Your task to perform on an android device: Open Google Chrome and click the shortcut for Amazon.com Image 0: 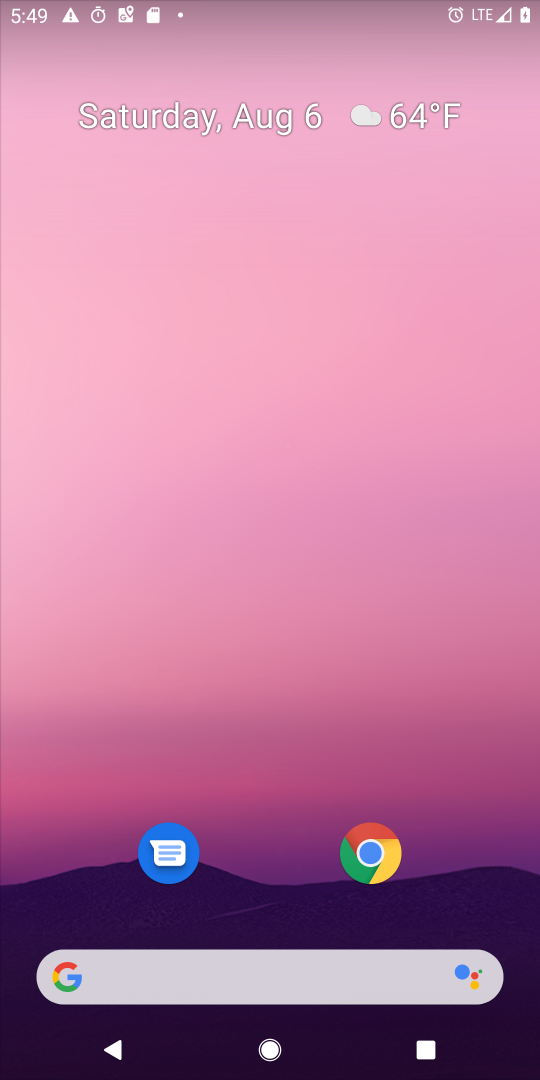
Step 0: click (372, 849)
Your task to perform on an android device: Open Google Chrome and click the shortcut for Amazon.com Image 1: 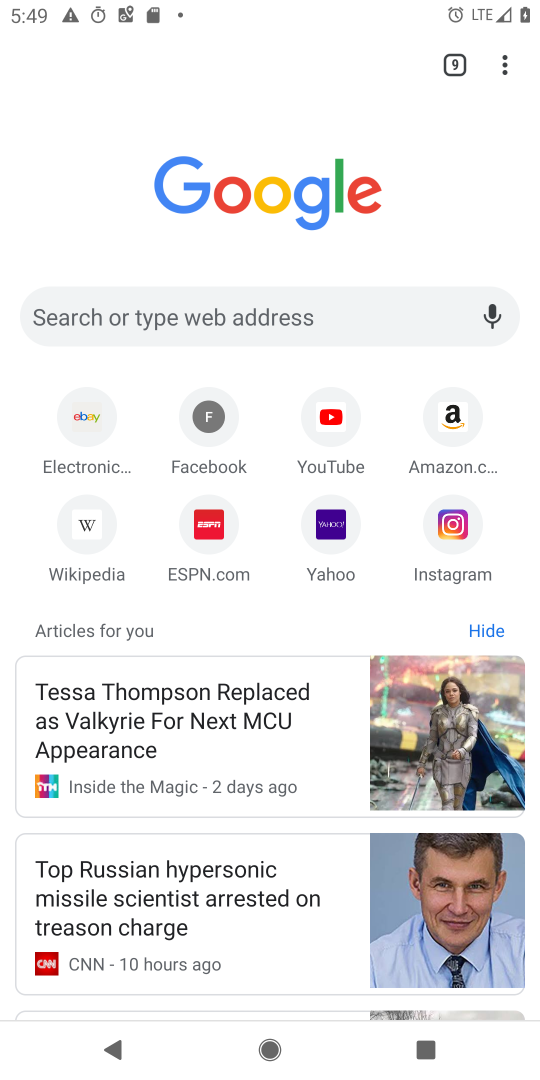
Step 1: click (443, 406)
Your task to perform on an android device: Open Google Chrome and click the shortcut for Amazon.com Image 2: 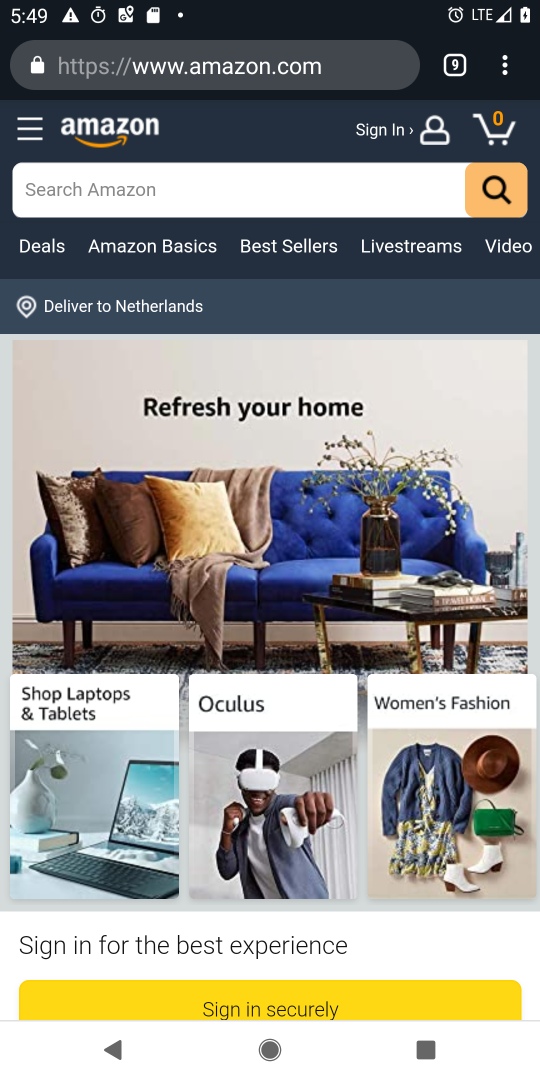
Step 2: task complete